Your task to perform on an android device: toggle notification dots Image 0: 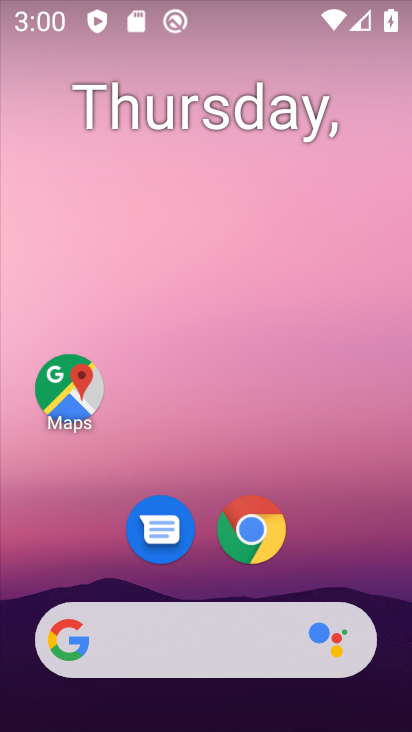
Step 0: drag from (345, 528) to (270, 6)
Your task to perform on an android device: toggle notification dots Image 1: 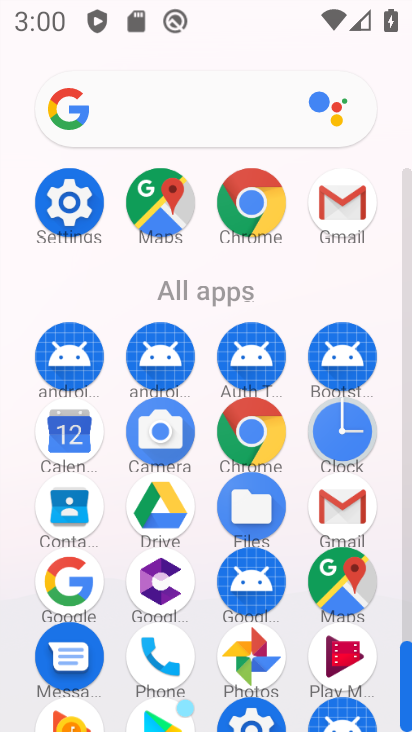
Step 1: click (68, 201)
Your task to perform on an android device: toggle notification dots Image 2: 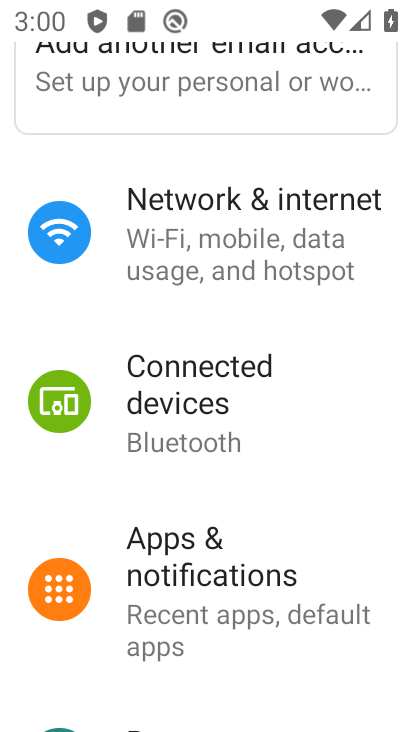
Step 2: click (192, 552)
Your task to perform on an android device: toggle notification dots Image 3: 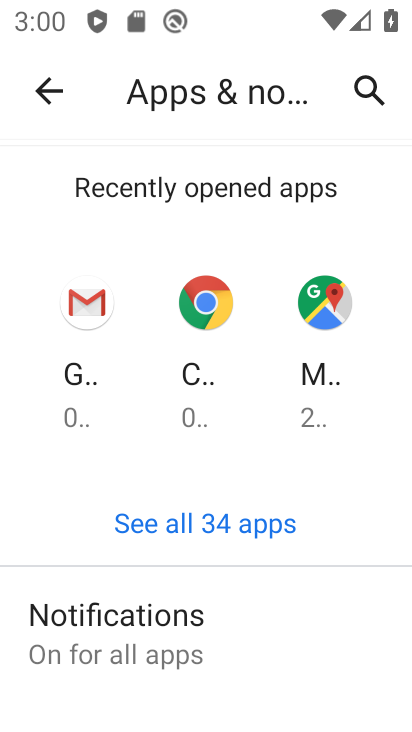
Step 3: click (168, 609)
Your task to perform on an android device: toggle notification dots Image 4: 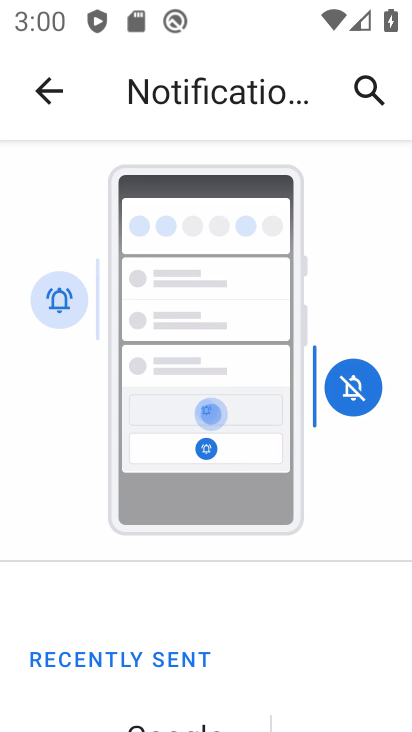
Step 4: drag from (243, 623) to (274, 433)
Your task to perform on an android device: toggle notification dots Image 5: 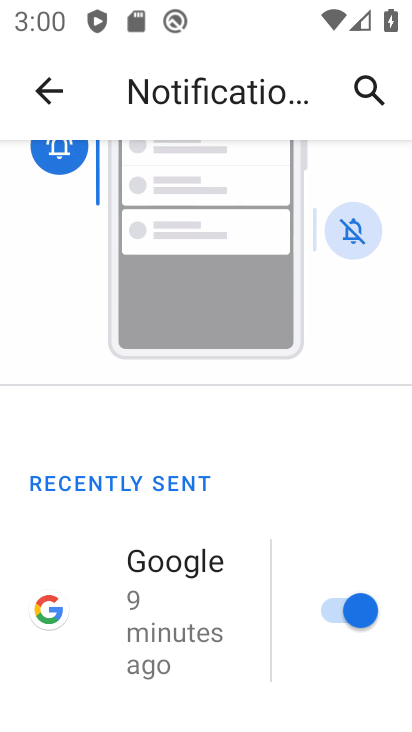
Step 5: drag from (254, 483) to (299, 307)
Your task to perform on an android device: toggle notification dots Image 6: 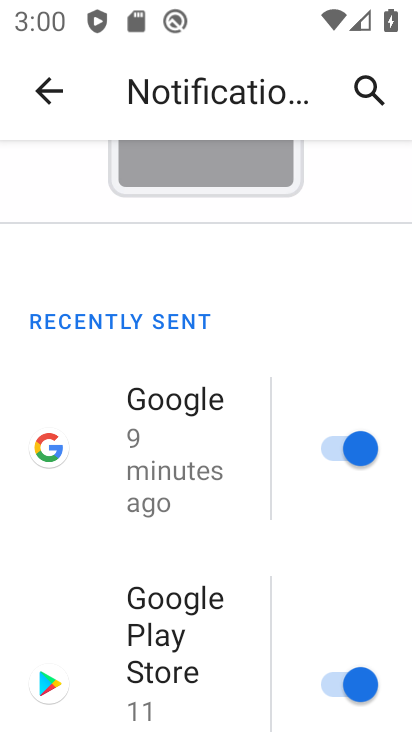
Step 6: drag from (214, 557) to (293, 331)
Your task to perform on an android device: toggle notification dots Image 7: 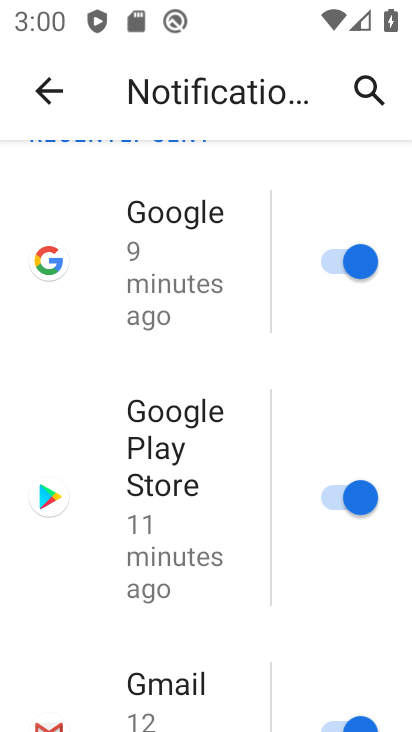
Step 7: drag from (189, 635) to (255, 299)
Your task to perform on an android device: toggle notification dots Image 8: 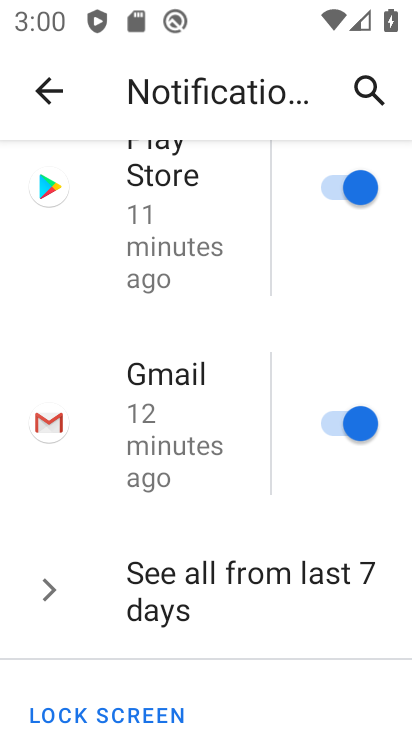
Step 8: drag from (199, 646) to (246, 406)
Your task to perform on an android device: toggle notification dots Image 9: 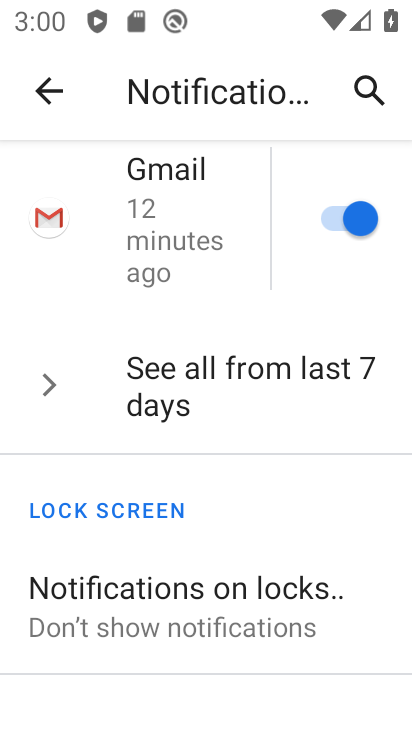
Step 9: drag from (185, 611) to (264, 411)
Your task to perform on an android device: toggle notification dots Image 10: 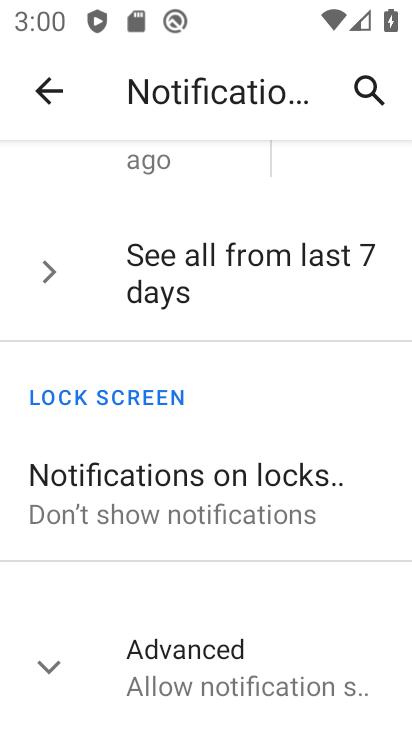
Step 10: drag from (231, 674) to (299, 525)
Your task to perform on an android device: toggle notification dots Image 11: 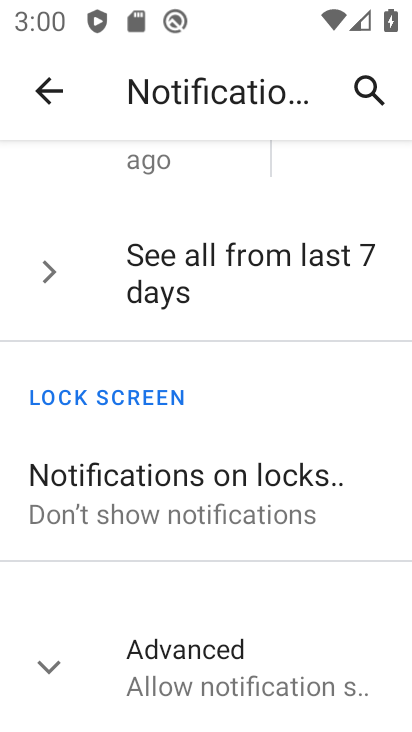
Step 11: click (217, 657)
Your task to perform on an android device: toggle notification dots Image 12: 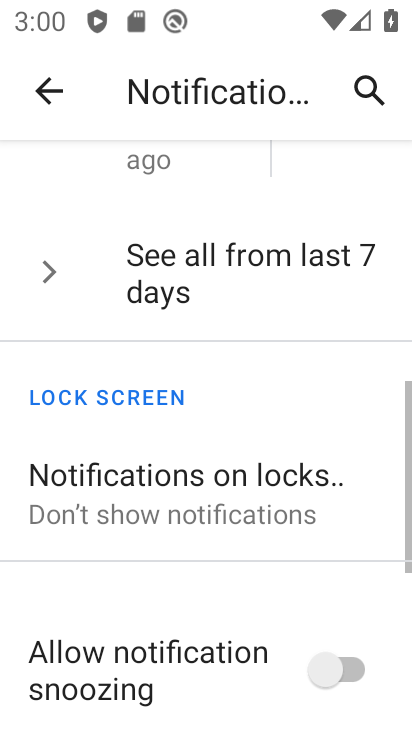
Step 12: drag from (223, 636) to (291, 452)
Your task to perform on an android device: toggle notification dots Image 13: 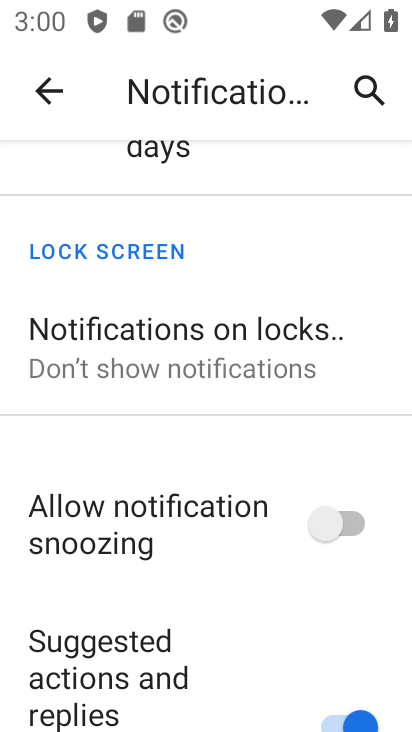
Step 13: drag from (220, 640) to (287, 461)
Your task to perform on an android device: toggle notification dots Image 14: 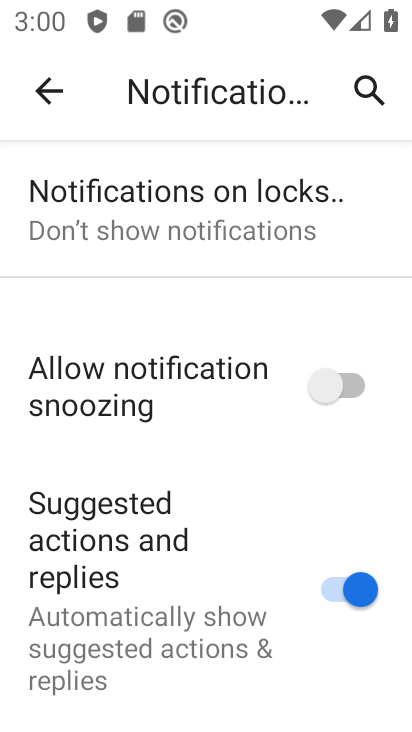
Step 14: drag from (213, 603) to (270, 434)
Your task to perform on an android device: toggle notification dots Image 15: 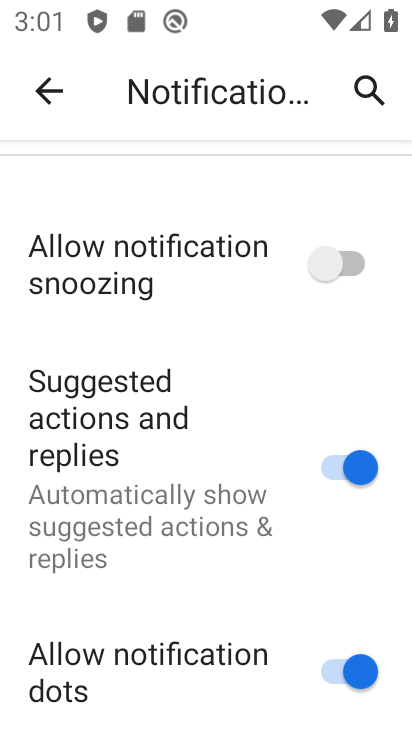
Step 15: click (358, 677)
Your task to perform on an android device: toggle notification dots Image 16: 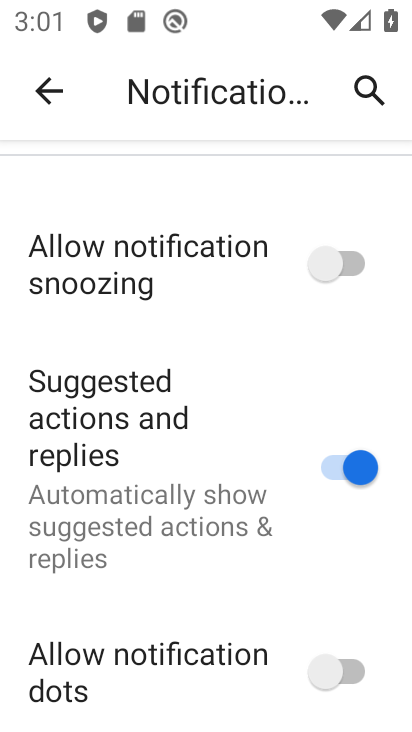
Step 16: task complete